Your task to perform on an android device: Open Wikipedia Image 0: 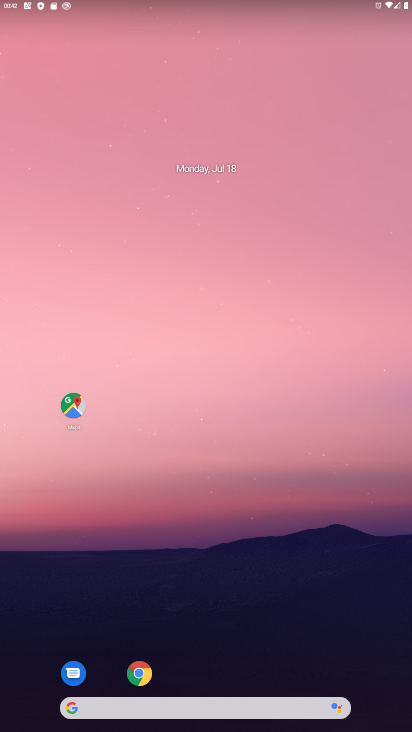
Step 0: drag from (234, 671) to (195, 76)
Your task to perform on an android device: Open Wikipedia Image 1: 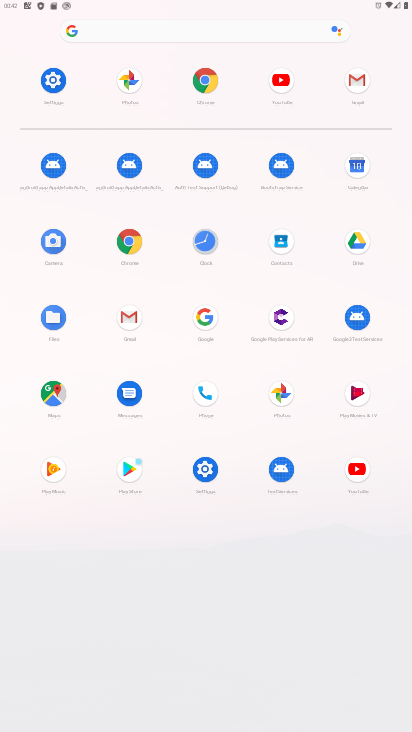
Step 1: click (207, 25)
Your task to perform on an android device: Open Wikipedia Image 2: 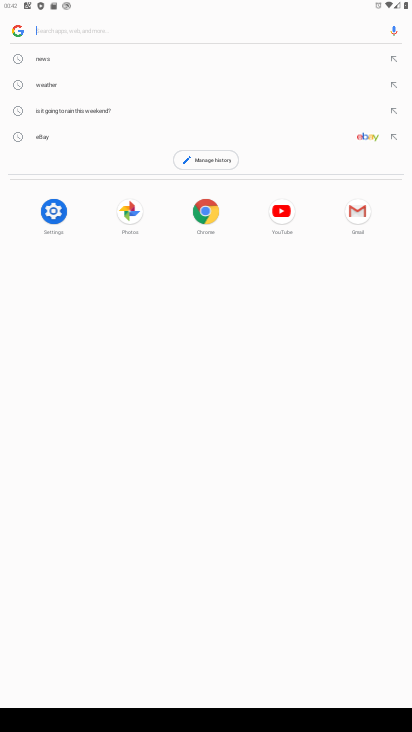
Step 2: type "wikipedia"
Your task to perform on an android device: Open Wikipedia Image 3: 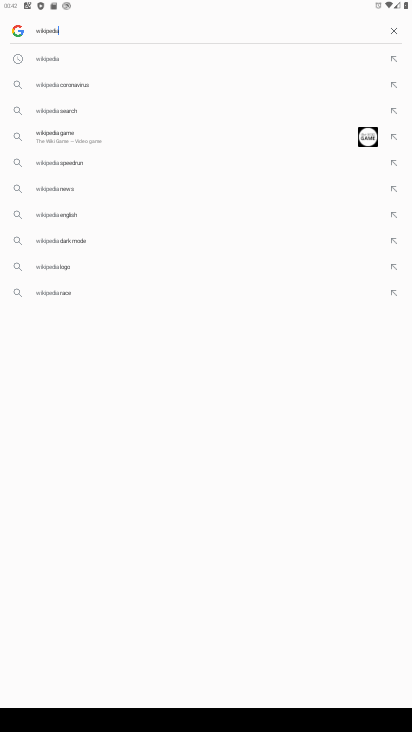
Step 3: click (82, 61)
Your task to perform on an android device: Open Wikipedia Image 4: 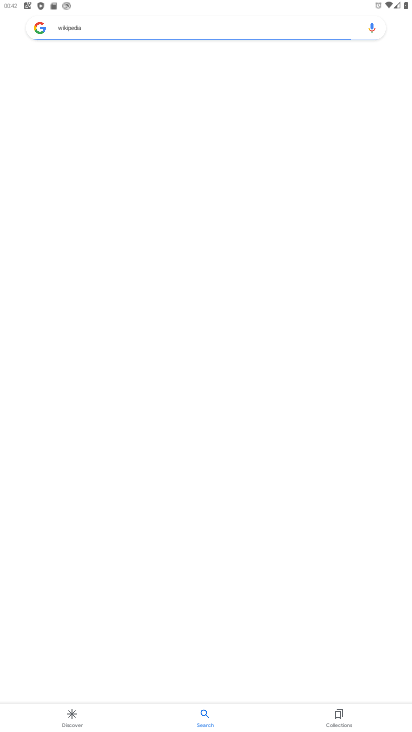
Step 4: task complete